Your task to perform on an android device: Open the calendar and show me this week's events? Image 0: 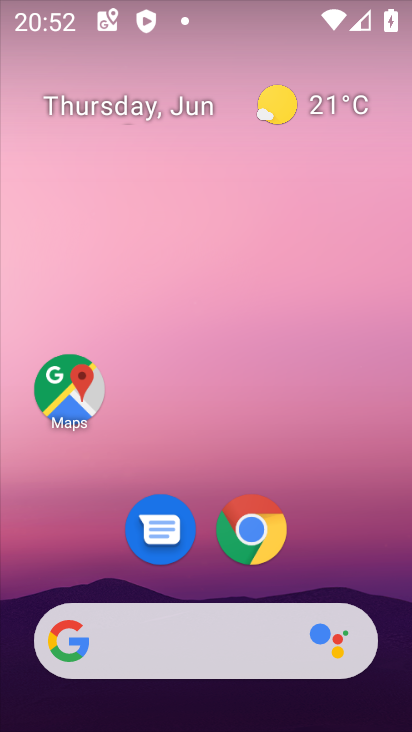
Step 0: drag from (326, 523) to (188, 136)
Your task to perform on an android device: Open the calendar and show me this week's events? Image 1: 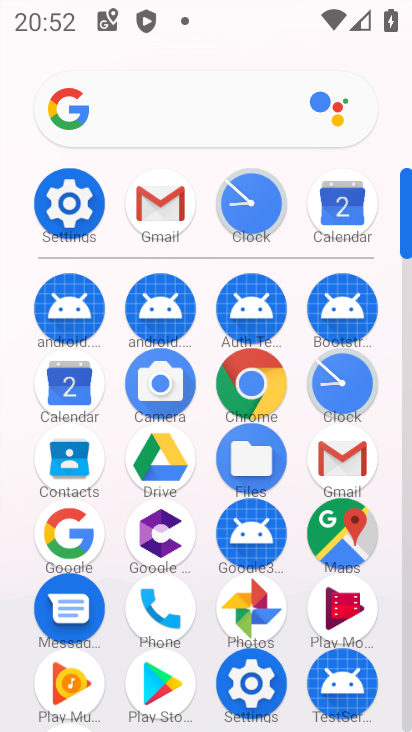
Step 1: click (71, 389)
Your task to perform on an android device: Open the calendar and show me this week's events? Image 2: 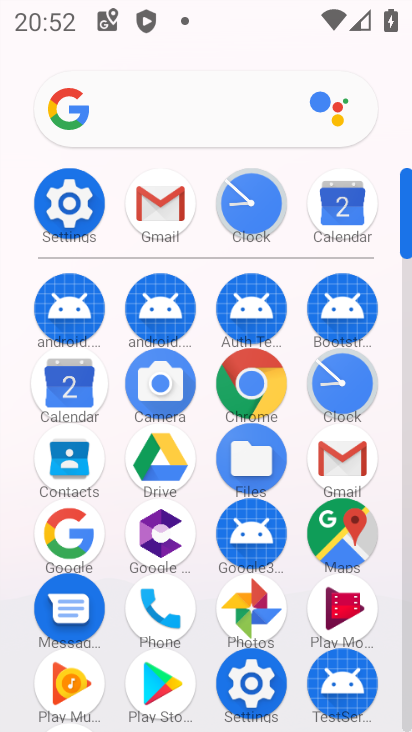
Step 2: click (71, 389)
Your task to perform on an android device: Open the calendar and show me this week's events? Image 3: 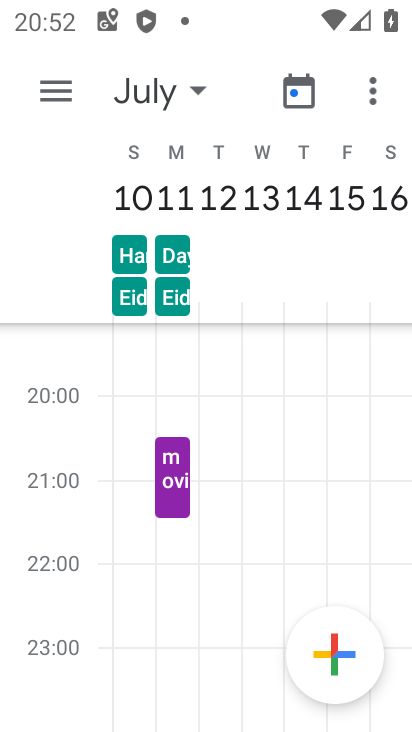
Step 3: click (193, 88)
Your task to perform on an android device: Open the calendar and show me this week's events? Image 4: 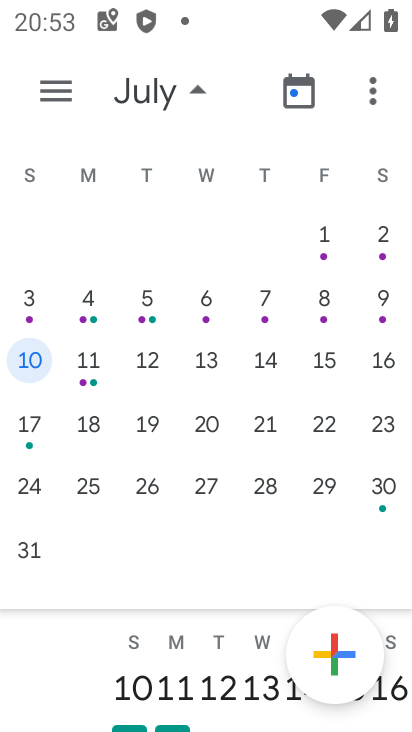
Step 4: drag from (42, 286) to (396, 382)
Your task to perform on an android device: Open the calendar and show me this week's events? Image 5: 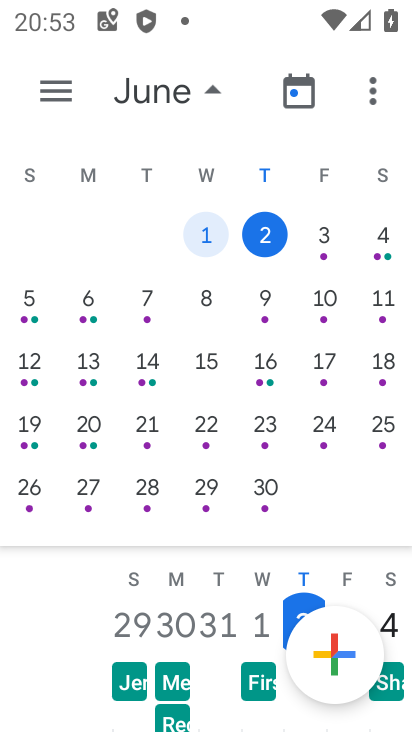
Step 5: click (271, 229)
Your task to perform on an android device: Open the calendar and show me this week's events? Image 6: 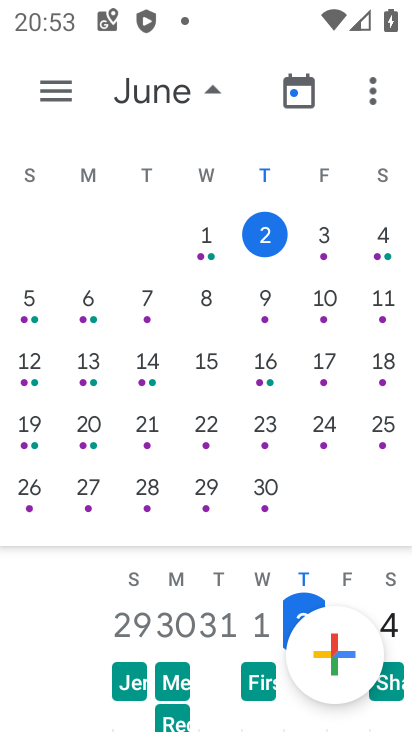
Step 6: click (95, 239)
Your task to perform on an android device: Open the calendar and show me this week's events? Image 7: 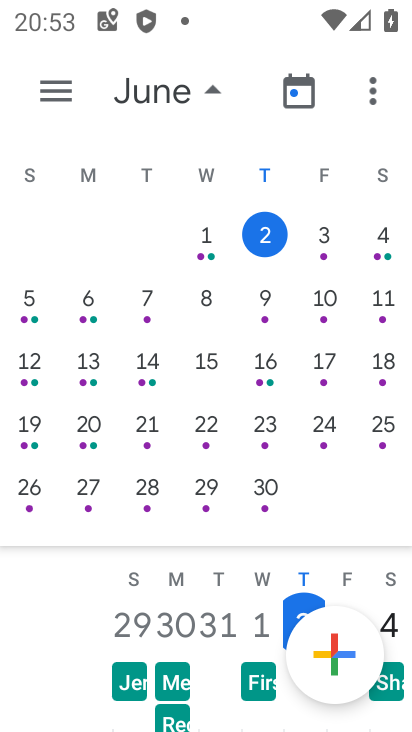
Step 7: task complete